Your task to perform on an android device: turn off picture-in-picture Image 0: 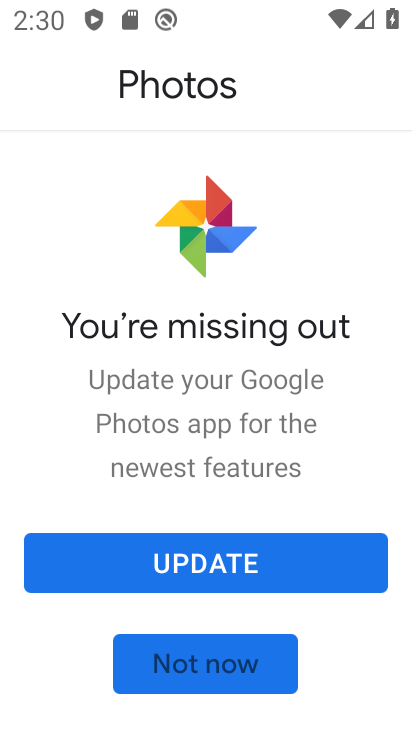
Step 0: click (205, 650)
Your task to perform on an android device: turn off picture-in-picture Image 1: 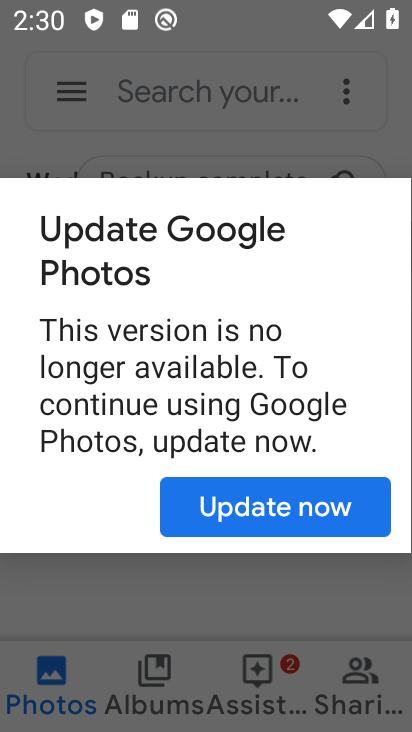
Step 1: press home button
Your task to perform on an android device: turn off picture-in-picture Image 2: 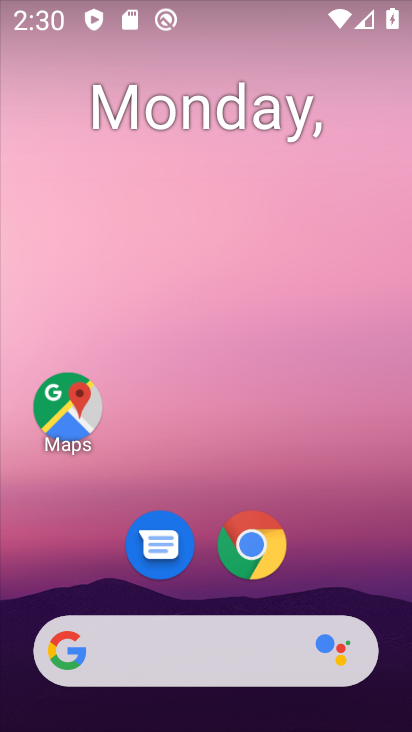
Step 2: drag from (226, 462) to (281, 44)
Your task to perform on an android device: turn off picture-in-picture Image 3: 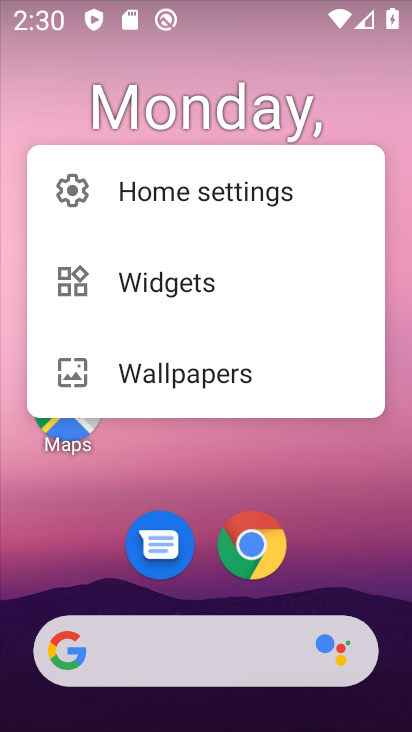
Step 3: click (222, 456)
Your task to perform on an android device: turn off picture-in-picture Image 4: 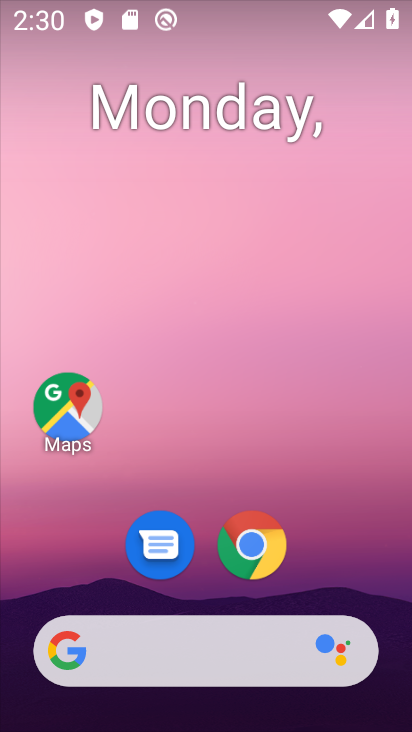
Step 4: drag from (212, 519) to (265, 42)
Your task to perform on an android device: turn off picture-in-picture Image 5: 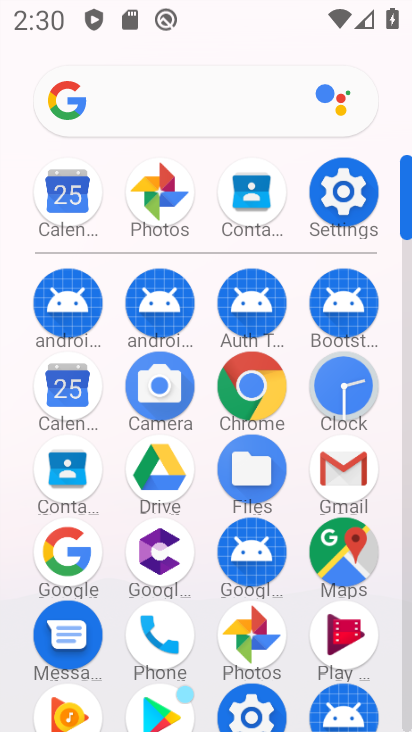
Step 5: click (353, 187)
Your task to perform on an android device: turn off picture-in-picture Image 6: 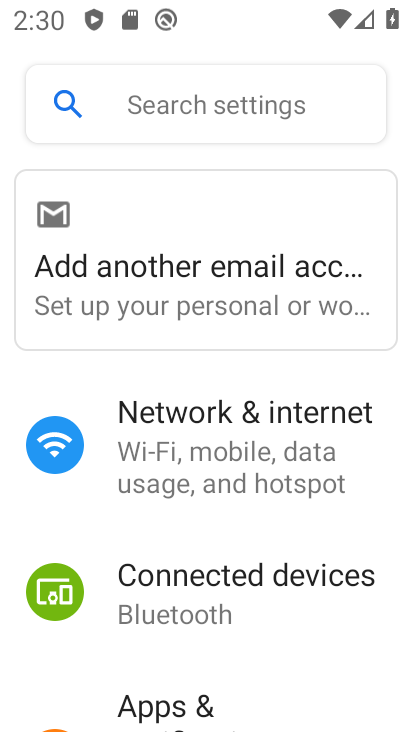
Step 6: drag from (229, 635) to (279, 323)
Your task to perform on an android device: turn off picture-in-picture Image 7: 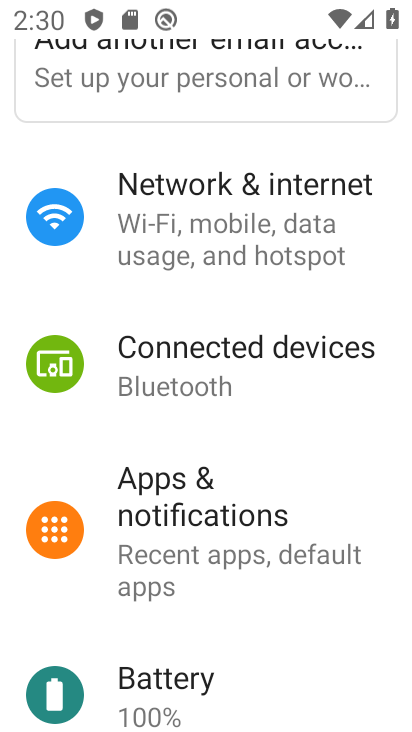
Step 7: click (248, 537)
Your task to perform on an android device: turn off picture-in-picture Image 8: 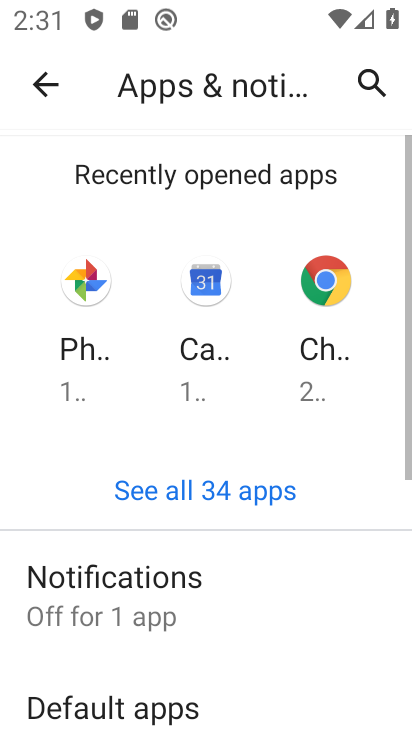
Step 8: drag from (175, 629) to (275, 212)
Your task to perform on an android device: turn off picture-in-picture Image 9: 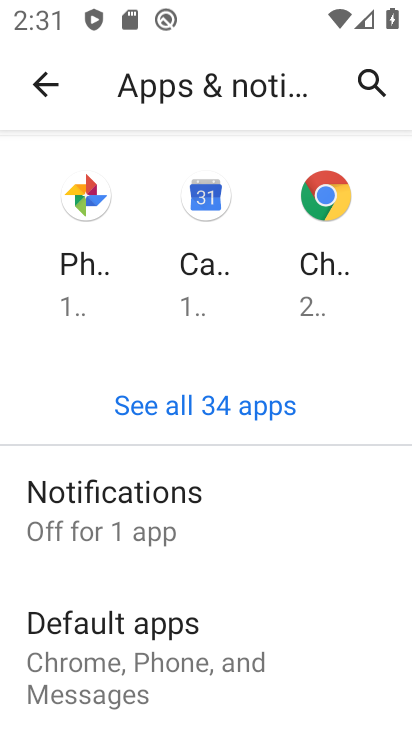
Step 9: drag from (169, 656) to (306, 255)
Your task to perform on an android device: turn off picture-in-picture Image 10: 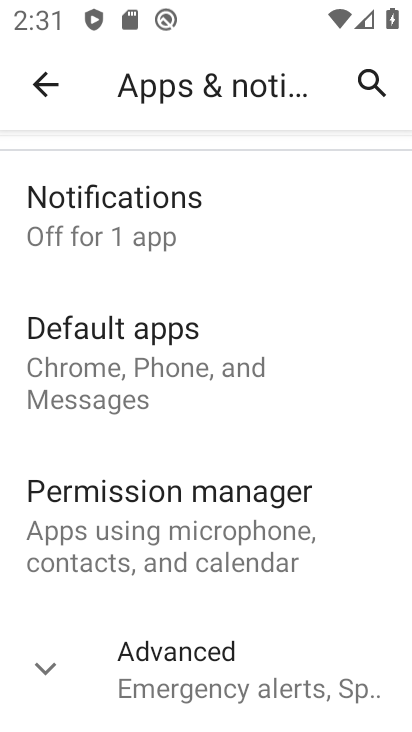
Step 10: click (203, 661)
Your task to perform on an android device: turn off picture-in-picture Image 11: 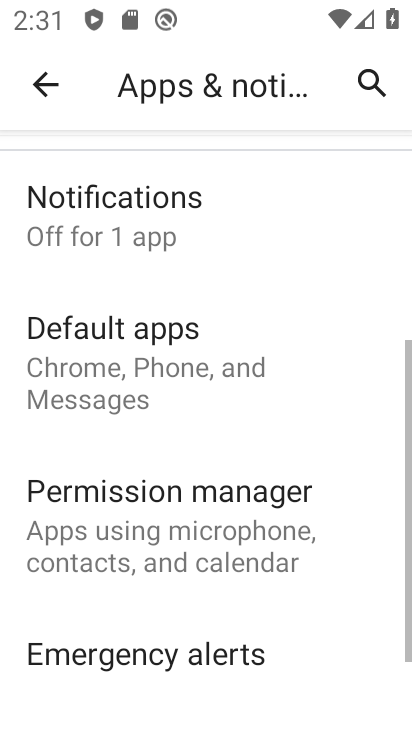
Step 11: drag from (184, 669) to (279, 168)
Your task to perform on an android device: turn off picture-in-picture Image 12: 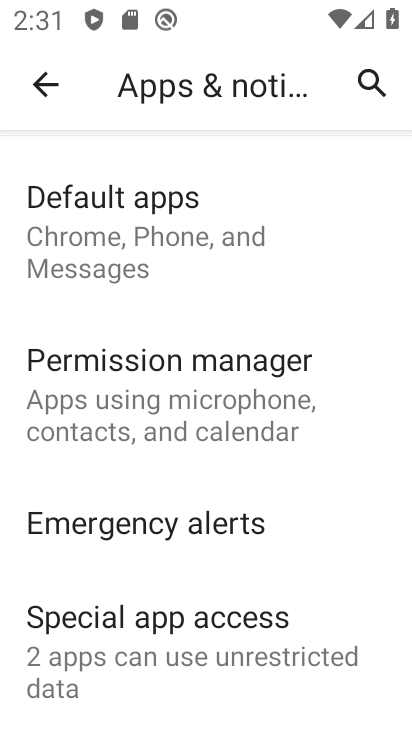
Step 12: click (188, 635)
Your task to perform on an android device: turn off picture-in-picture Image 13: 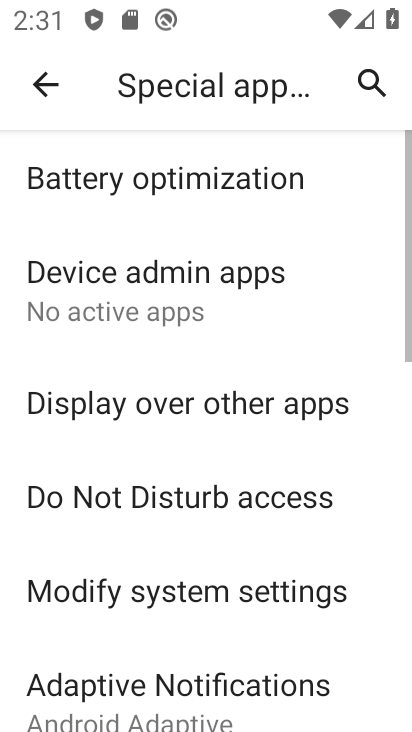
Step 13: drag from (199, 571) to (312, 161)
Your task to perform on an android device: turn off picture-in-picture Image 14: 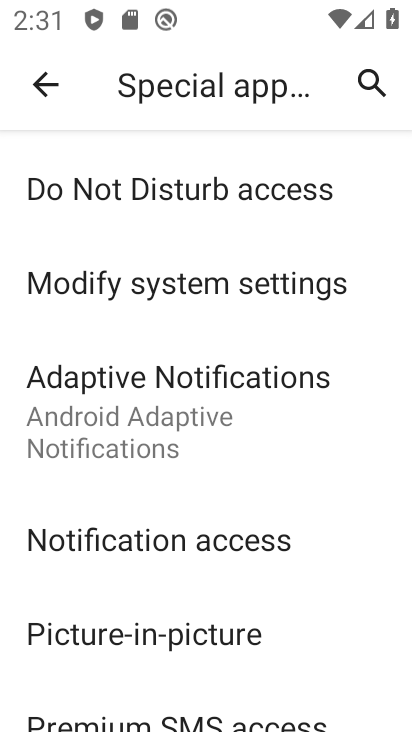
Step 14: click (205, 648)
Your task to perform on an android device: turn off picture-in-picture Image 15: 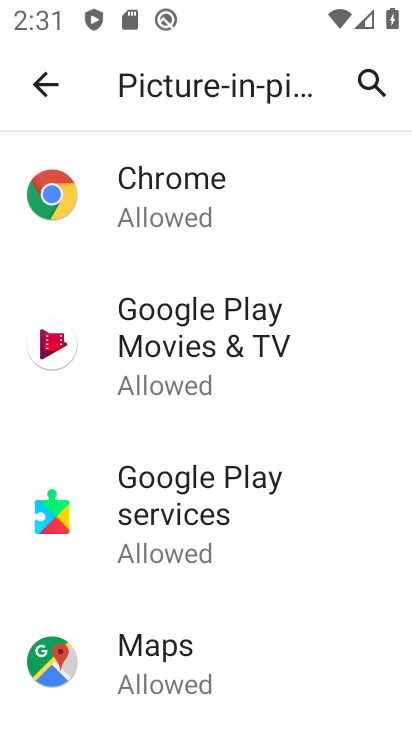
Step 15: click (185, 205)
Your task to perform on an android device: turn off picture-in-picture Image 16: 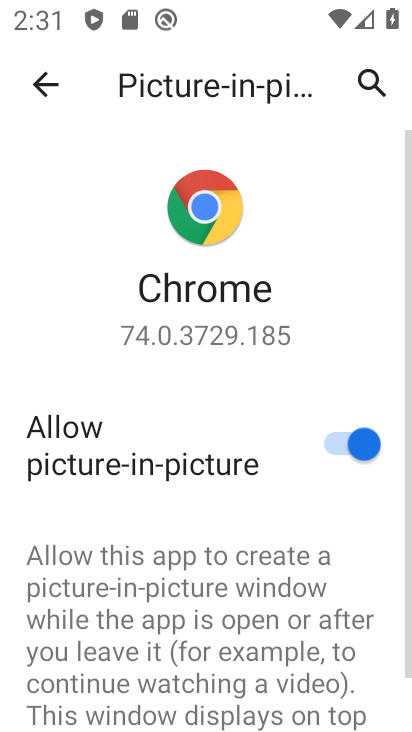
Step 16: click (341, 444)
Your task to perform on an android device: turn off picture-in-picture Image 17: 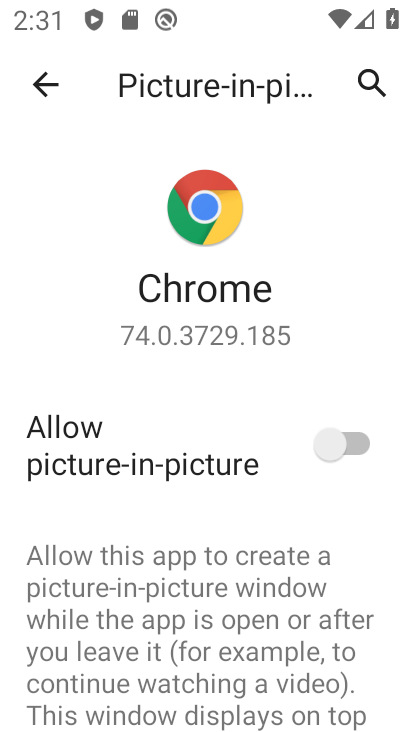
Step 17: task complete